Your task to perform on an android device: open the mobile data screen to see how much data has been used Image 0: 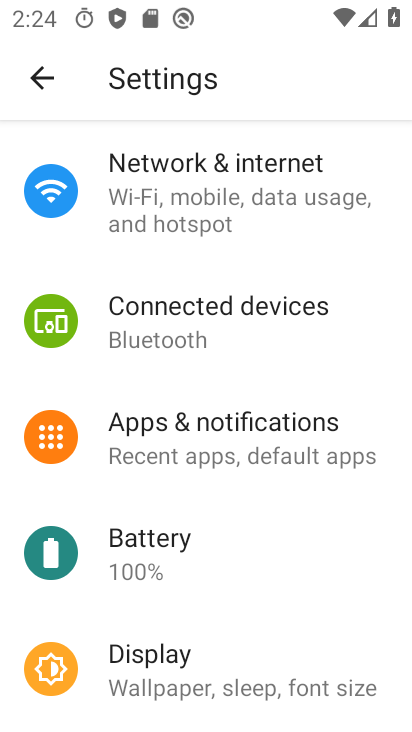
Step 0: click (226, 184)
Your task to perform on an android device: open the mobile data screen to see how much data has been used Image 1: 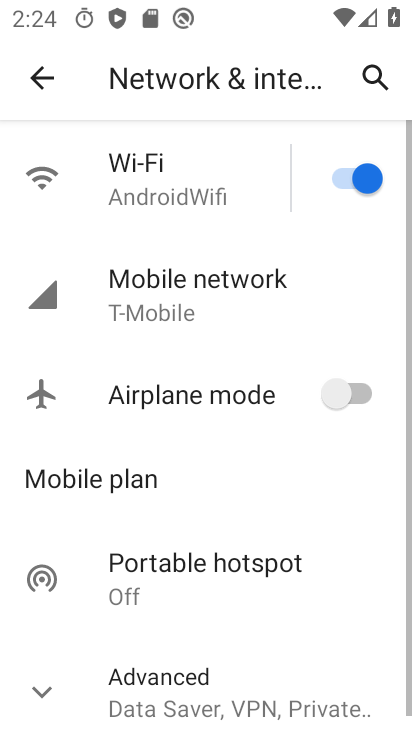
Step 1: click (226, 291)
Your task to perform on an android device: open the mobile data screen to see how much data has been used Image 2: 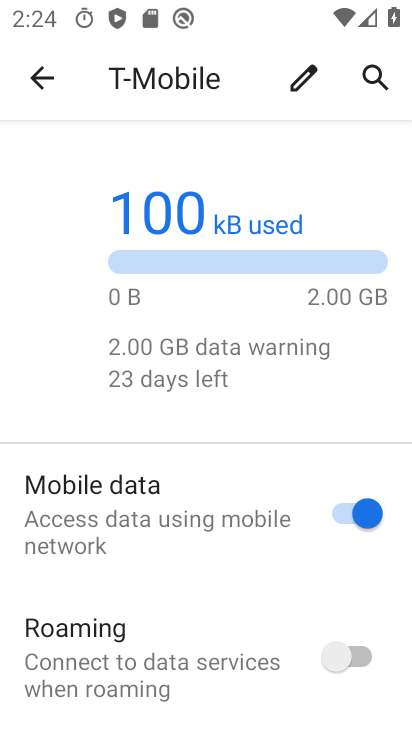
Step 2: task complete